Your task to perform on an android device: Go to eBay Image 0: 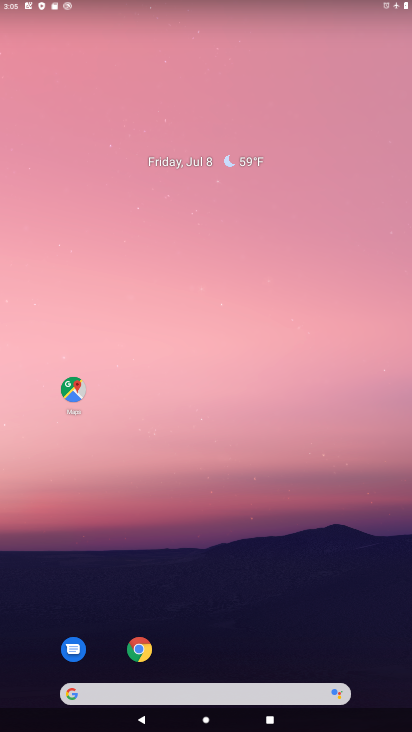
Step 0: drag from (356, 582) to (314, 149)
Your task to perform on an android device: Go to eBay Image 1: 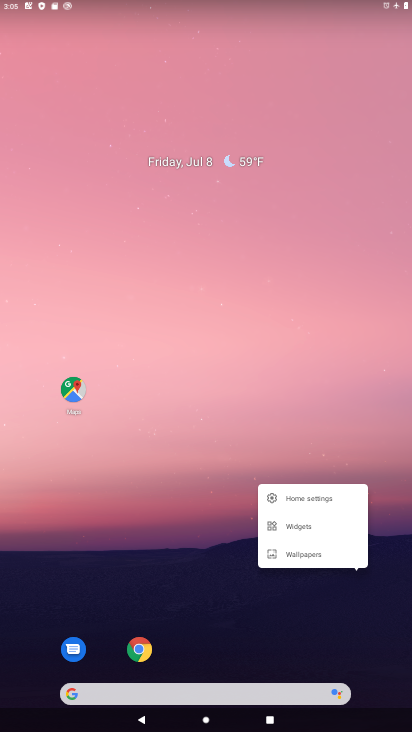
Step 1: click (192, 514)
Your task to perform on an android device: Go to eBay Image 2: 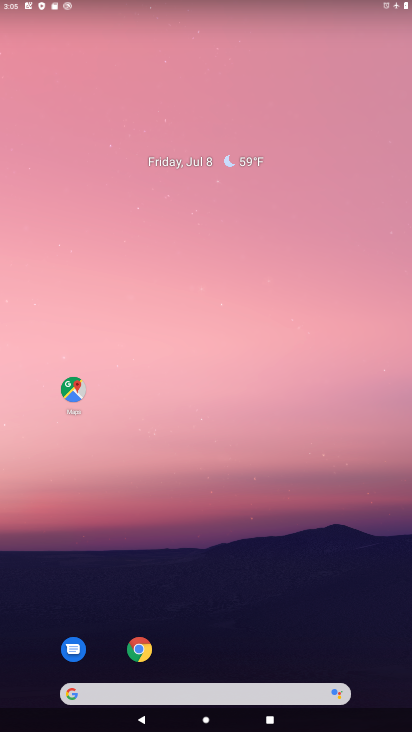
Step 2: drag from (247, 524) to (233, 137)
Your task to perform on an android device: Go to eBay Image 3: 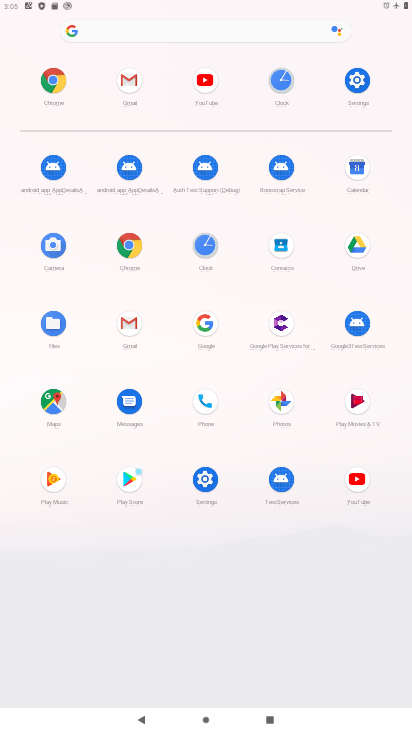
Step 3: click (130, 242)
Your task to perform on an android device: Go to eBay Image 4: 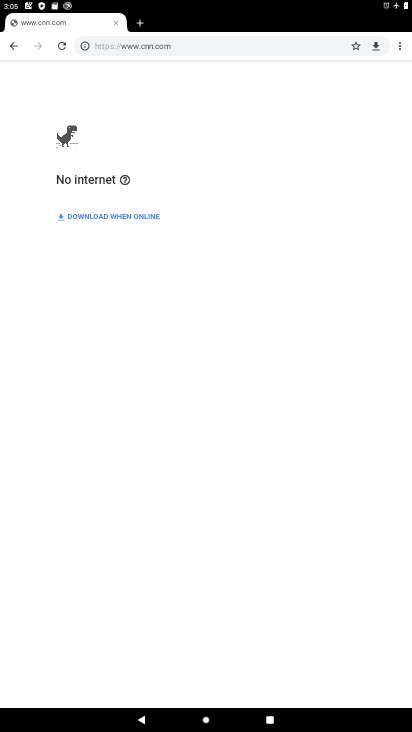
Step 4: click (153, 38)
Your task to perform on an android device: Go to eBay Image 5: 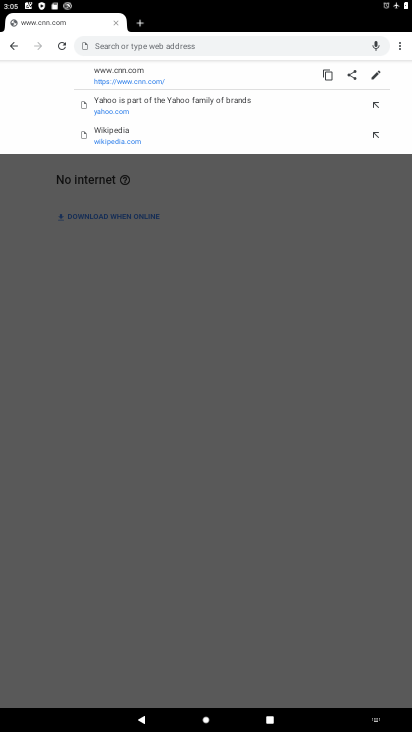
Step 5: type "ebay"
Your task to perform on an android device: Go to eBay Image 6: 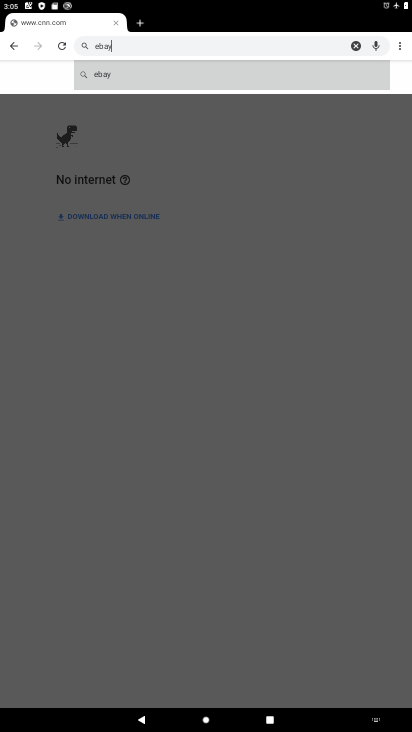
Step 6: click (150, 83)
Your task to perform on an android device: Go to eBay Image 7: 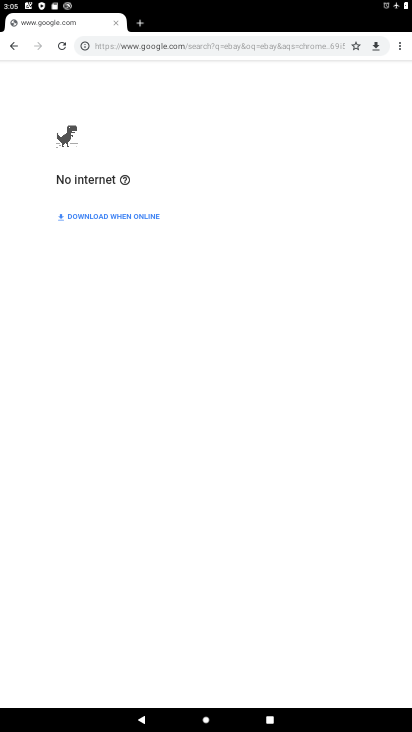
Step 7: task complete